Your task to perform on an android device: turn vacation reply on in the gmail app Image 0: 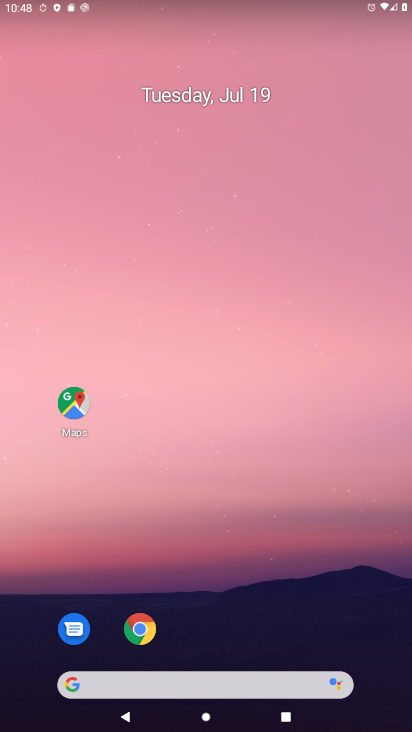
Step 0: drag from (260, 588) to (220, 130)
Your task to perform on an android device: turn vacation reply on in the gmail app Image 1: 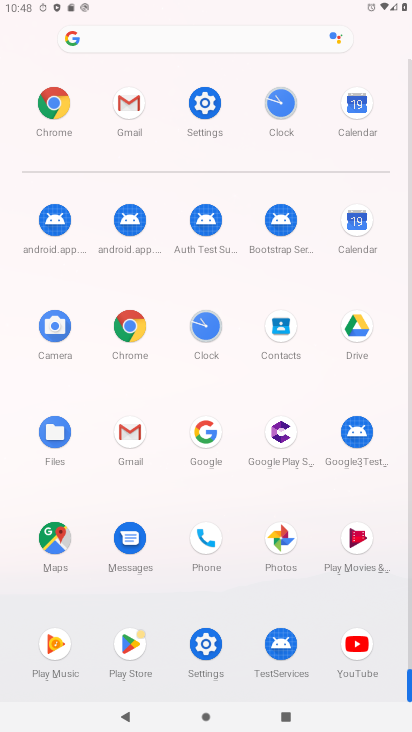
Step 1: click (136, 433)
Your task to perform on an android device: turn vacation reply on in the gmail app Image 2: 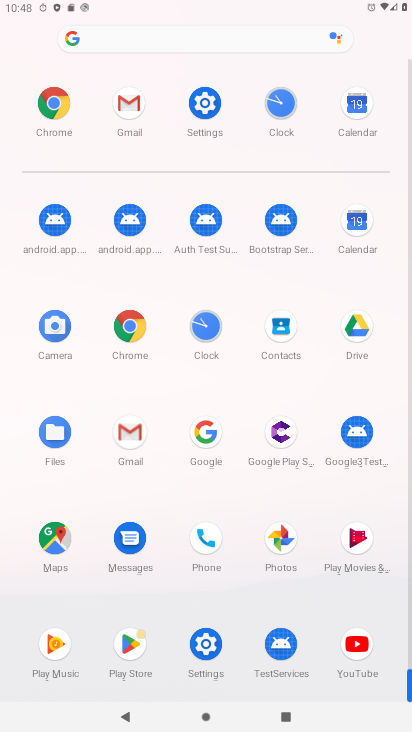
Step 2: click (131, 435)
Your task to perform on an android device: turn vacation reply on in the gmail app Image 3: 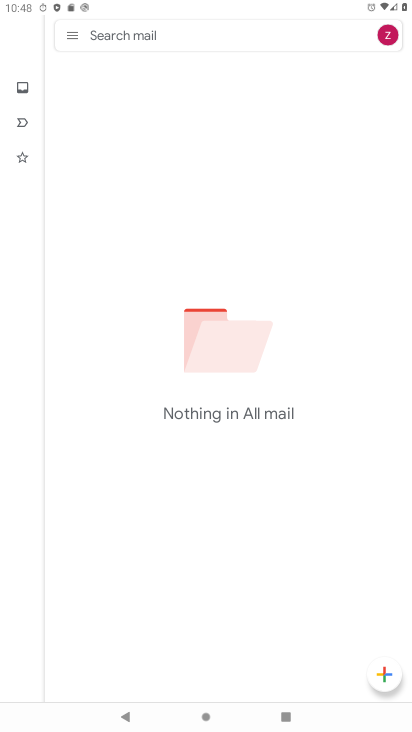
Step 3: drag from (67, 34) to (132, 308)
Your task to perform on an android device: turn vacation reply on in the gmail app Image 4: 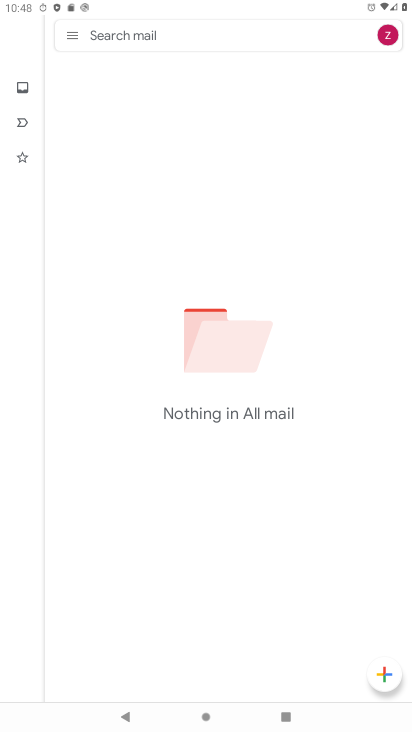
Step 4: click (62, 32)
Your task to perform on an android device: turn vacation reply on in the gmail app Image 5: 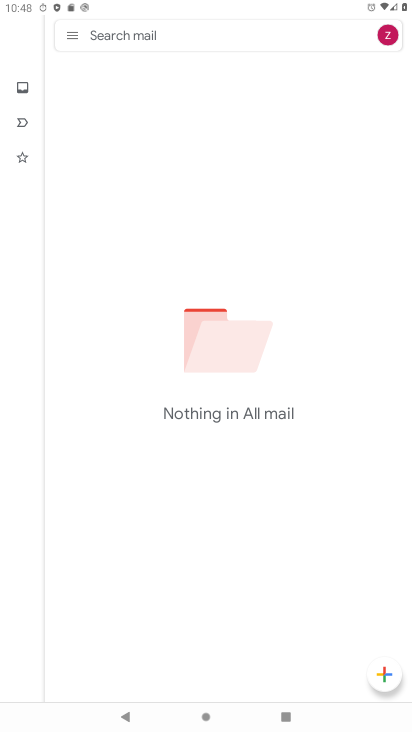
Step 5: click (69, 38)
Your task to perform on an android device: turn vacation reply on in the gmail app Image 6: 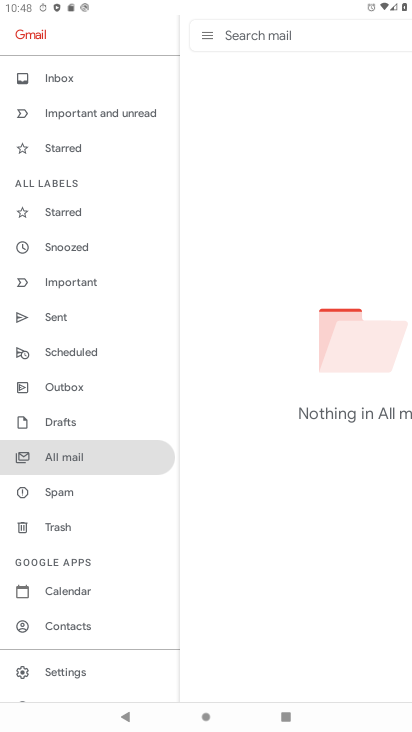
Step 6: click (72, 665)
Your task to perform on an android device: turn vacation reply on in the gmail app Image 7: 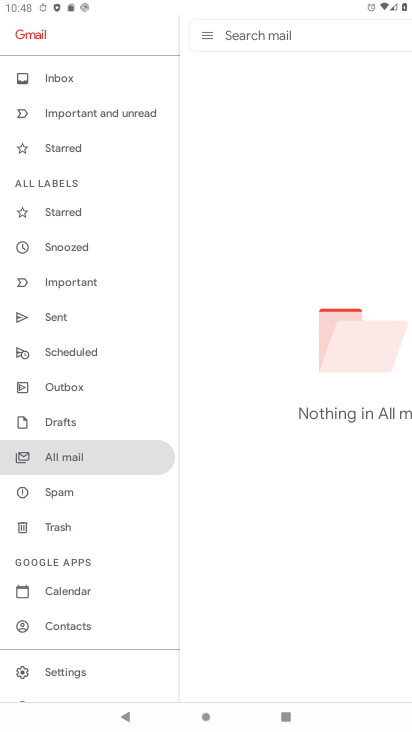
Step 7: click (70, 665)
Your task to perform on an android device: turn vacation reply on in the gmail app Image 8: 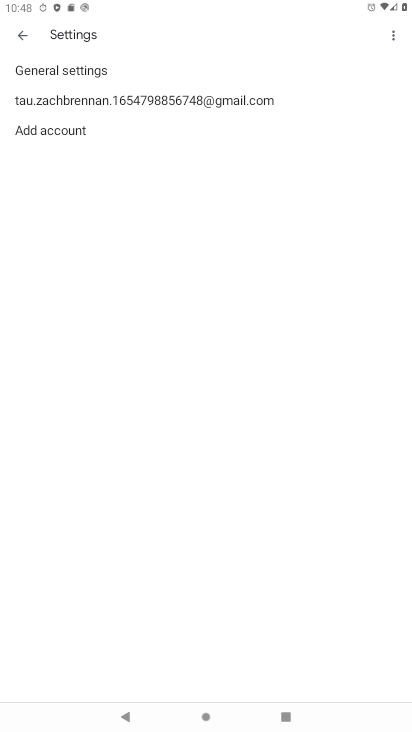
Step 8: click (78, 95)
Your task to perform on an android device: turn vacation reply on in the gmail app Image 9: 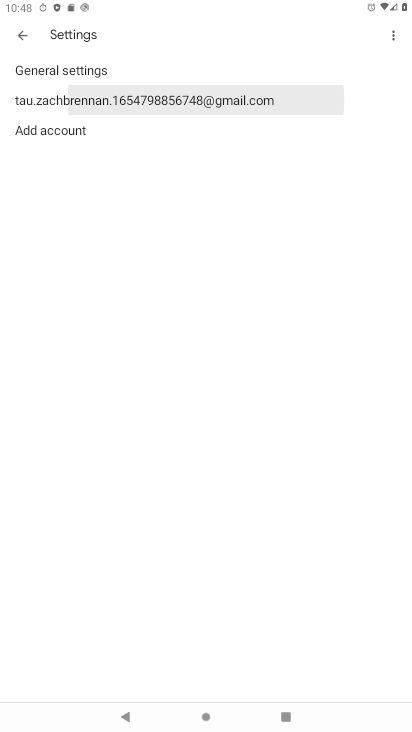
Step 9: click (79, 93)
Your task to perform on an android device: turn vacation reply on in the gmail app Image 10: 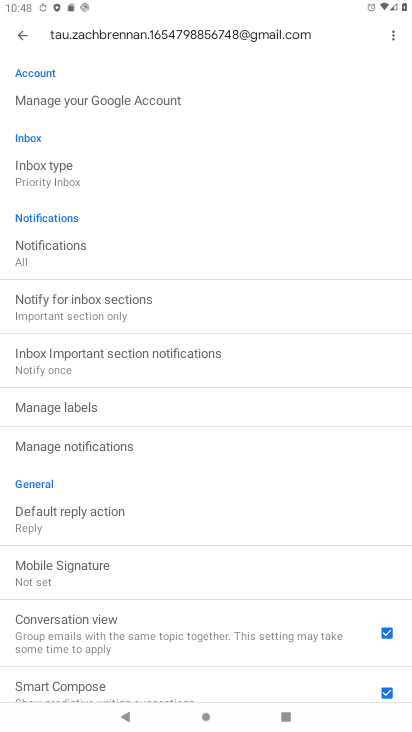
Step 10: drag from (119, 549) to (108, 109)
Your task to perform on an android device: turn vacation reply on in the gmail app Image 11: 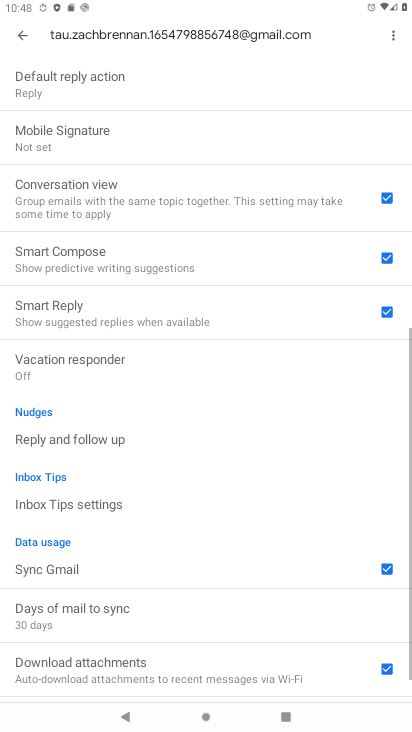
Step 11: drag from (125, 441) to (120, 123)
Your task to perform on an android device: turn vacation reply on in the gmail app Image 12: 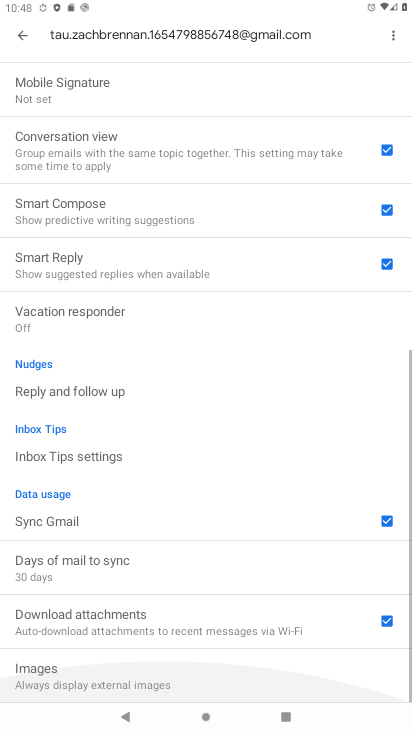
Step 12: drag from (82, 446) to (83, 140)
Your task to perform on an android device: turn vacation reply on in the gmail app Image 13: 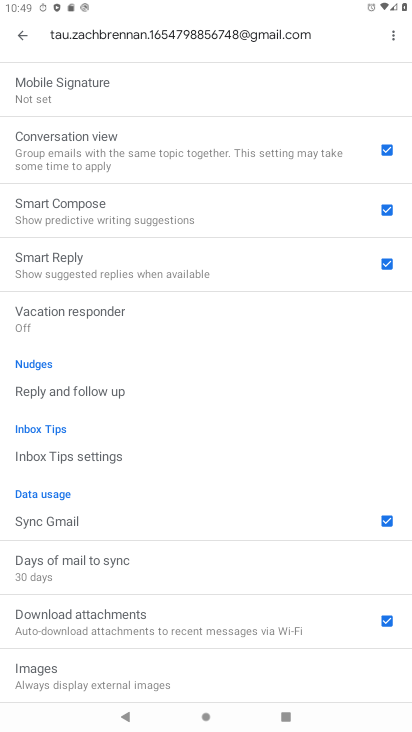
Step 13: click (76, 311)
Your task to perform on an android device: turn vacation reply on in the gmail app Image 14: 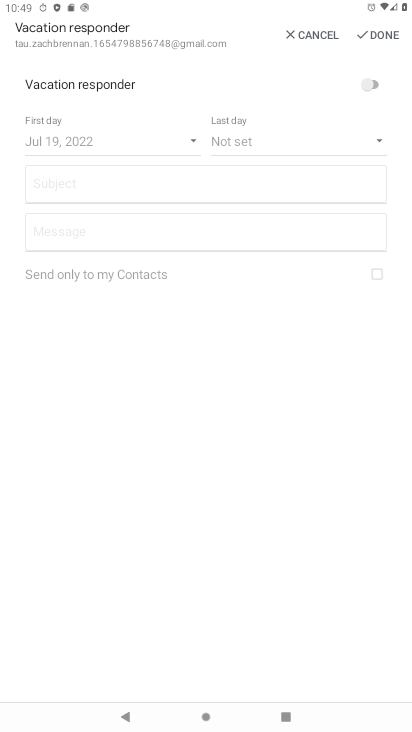
Step 14: click (368, 82)
Your task to perform on an android device: turn vacation reply on in the gmail app Image 15: 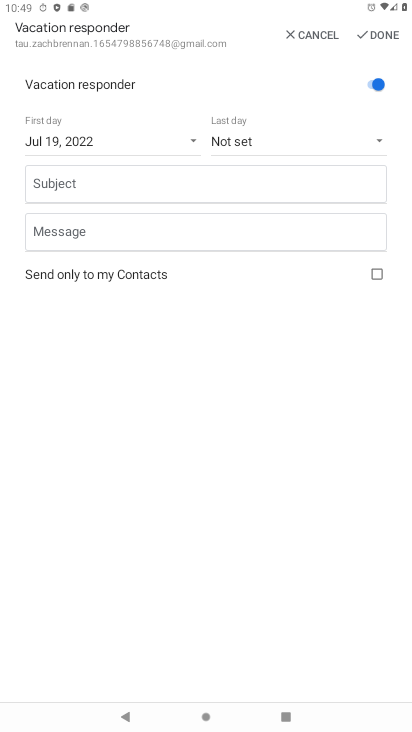
Step 15: task complete